Your task to perform on an android device: toggle notification dots Image 0: 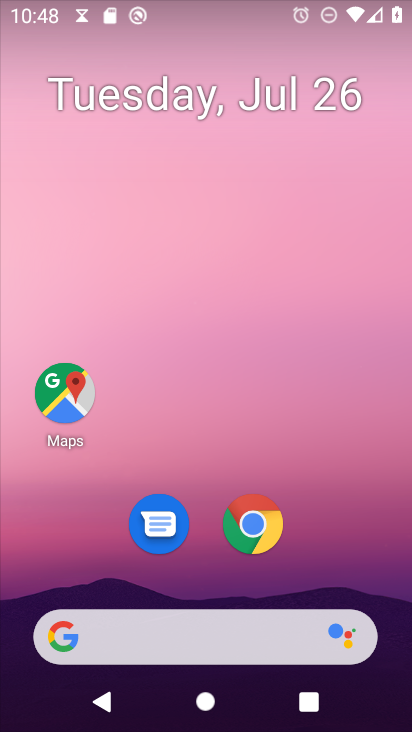
Step 0: press home button
Your task to perform on an android device: toggle notification dots Image 1: 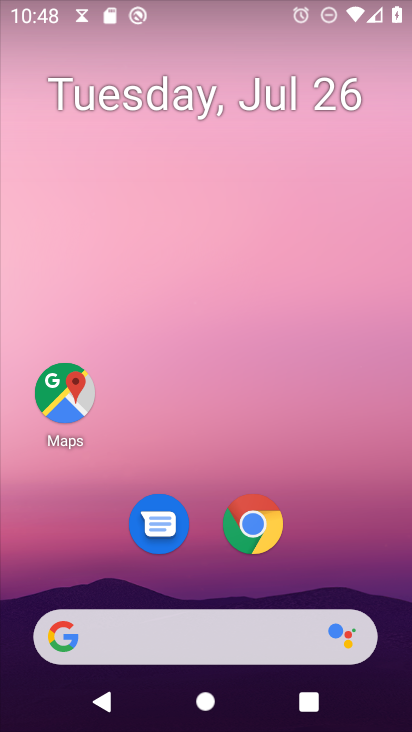
Step 1: drag from (237, 607) to (309, 107)
Your task to perform on an android device: toggle notification dots Image 2: 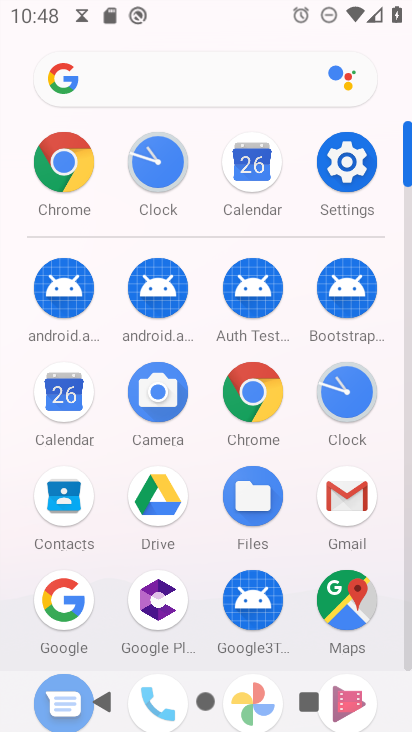
Step 2: click (336, 166)
Your task to perform on an android device: toggle notification dots Image 3: 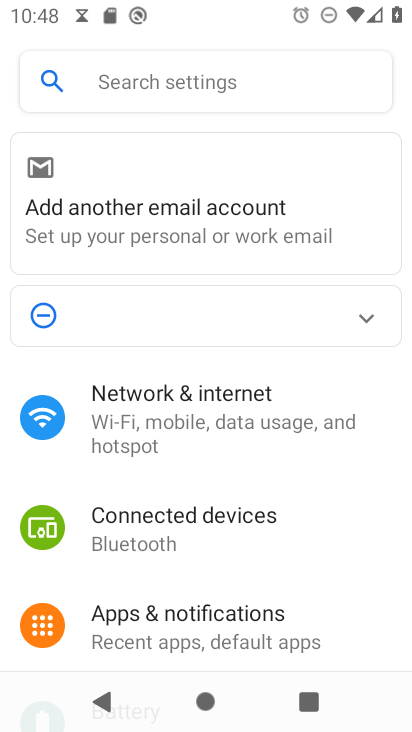
Step 3: drag from (270, 537) to (287, 187)
Your task to perform on an android device: toggle notification dots Image 4: 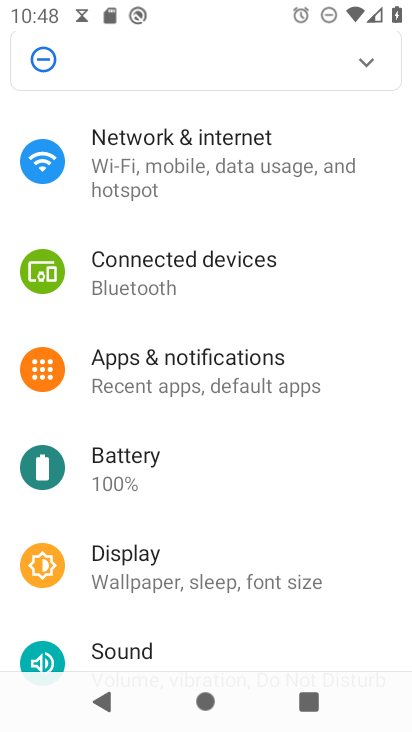
Step 4: click (216, 381)
Your task to perform on an android device: toggle notification dots Image 5: 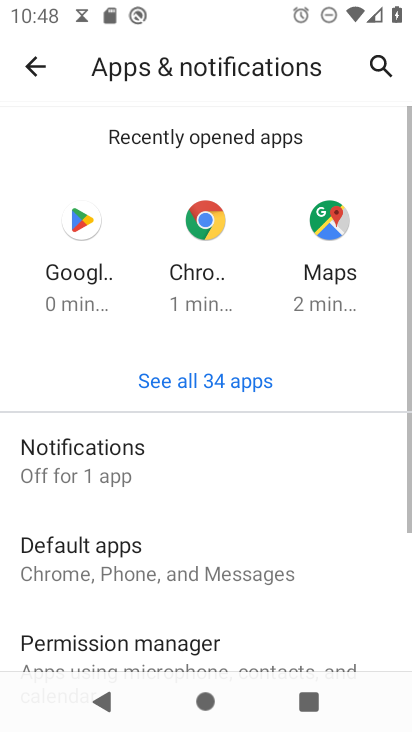
Step 5: click (93, 459)
Your task to perform on an android device: toggle notification dots Image 6: 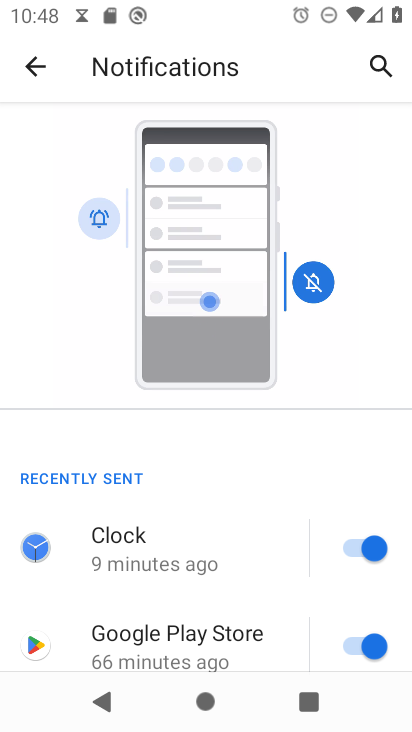
Step 6: drag from (219, 591) to (271, 65)
Your task to perform on an android device: toggle notification dots Image 7: 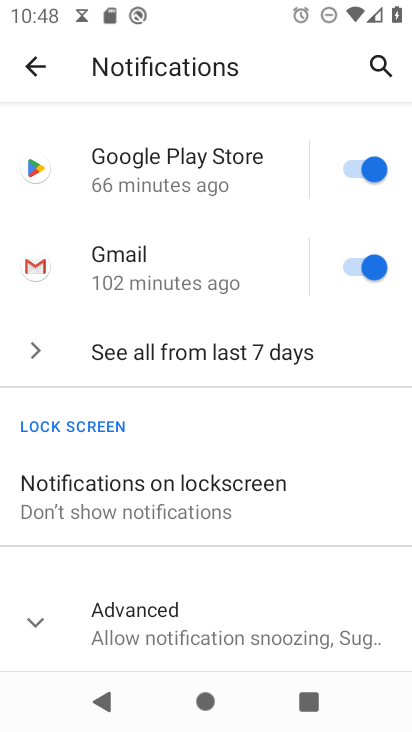
Step 7: click (154, 610)
Your task to perform on an android device: toggle notification dots Image 8: 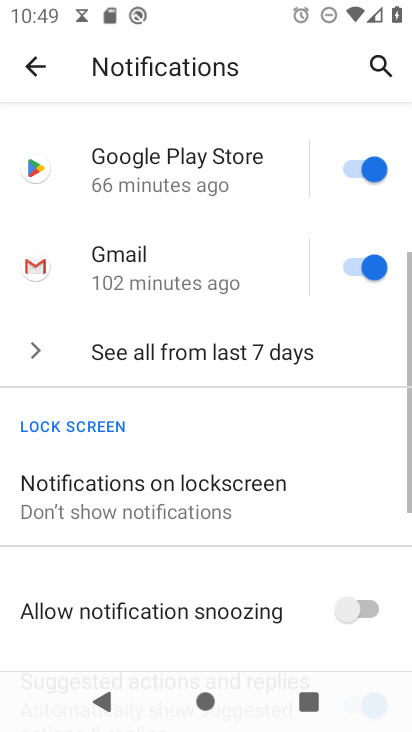
Step 8: drag from (198, 530) to (286, 110)
Your task to perform on an android device: toggle notification dots Image 9: 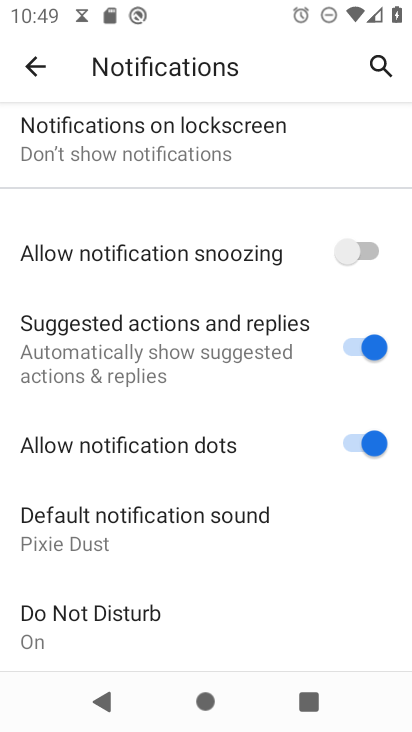
Step 9: click (353, 444)
Your task to perform on an android device: toggle notification dots Image 10: 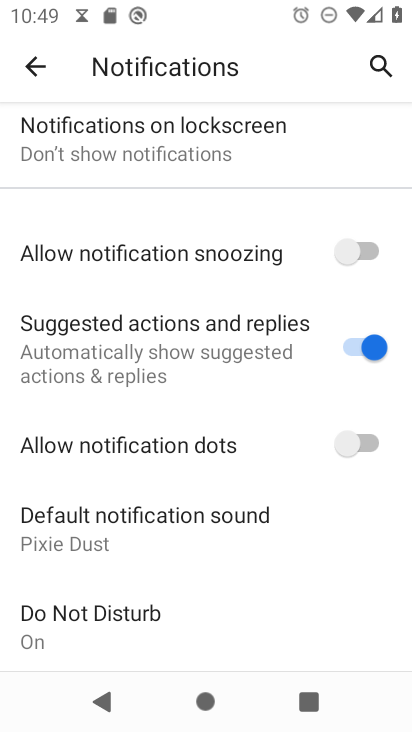
Step 10: task complete